Your task to perform on an android device: search for starred emails in the gmail app Image 0: 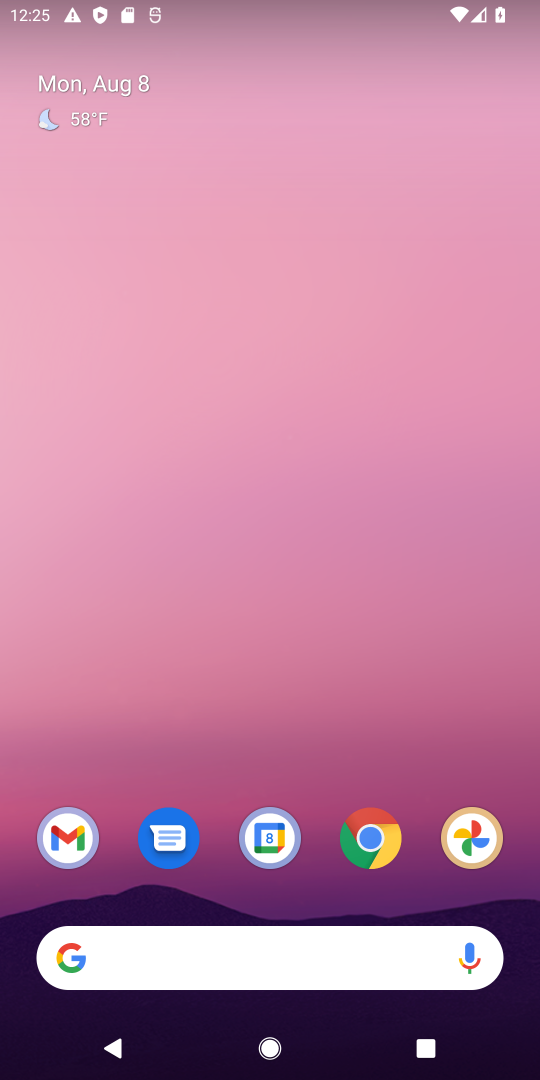
Step 0: click (65, 841)
Your task to perform on an android device: search for starred emails in the gmail app Image 1: 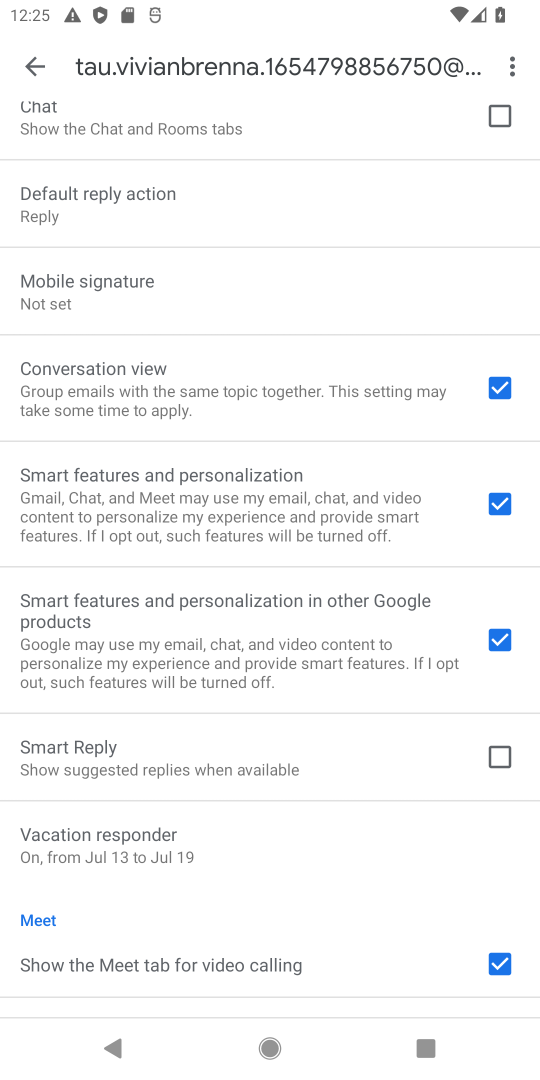
Step 1: click (27, 67)
Your task to perform on an android device: search for starred emails in the gmail app Image 2: 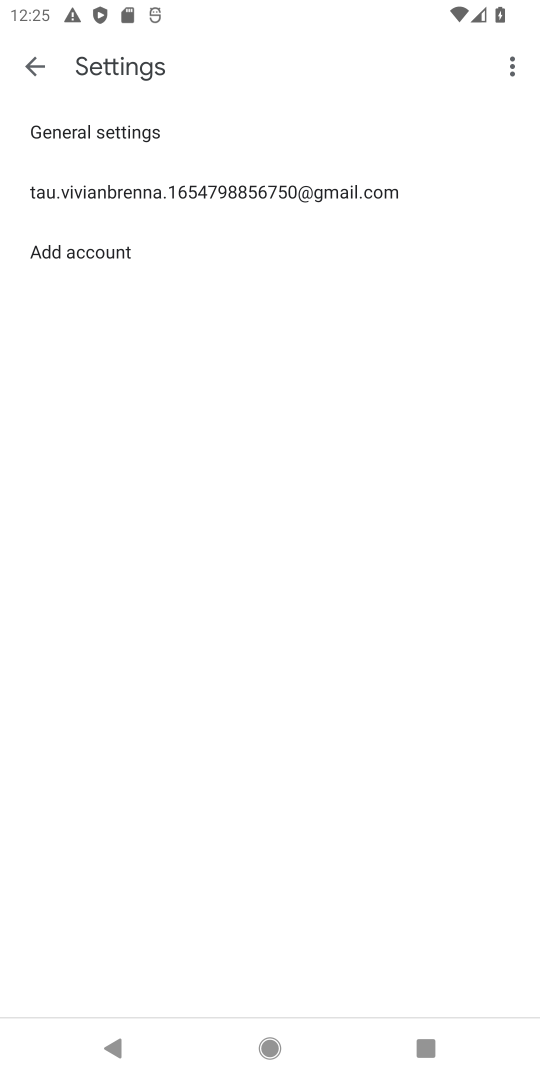
Step 2: click (36, 73)
Your task to perform on an android device: search for starred emails in the gmail app Image 3: 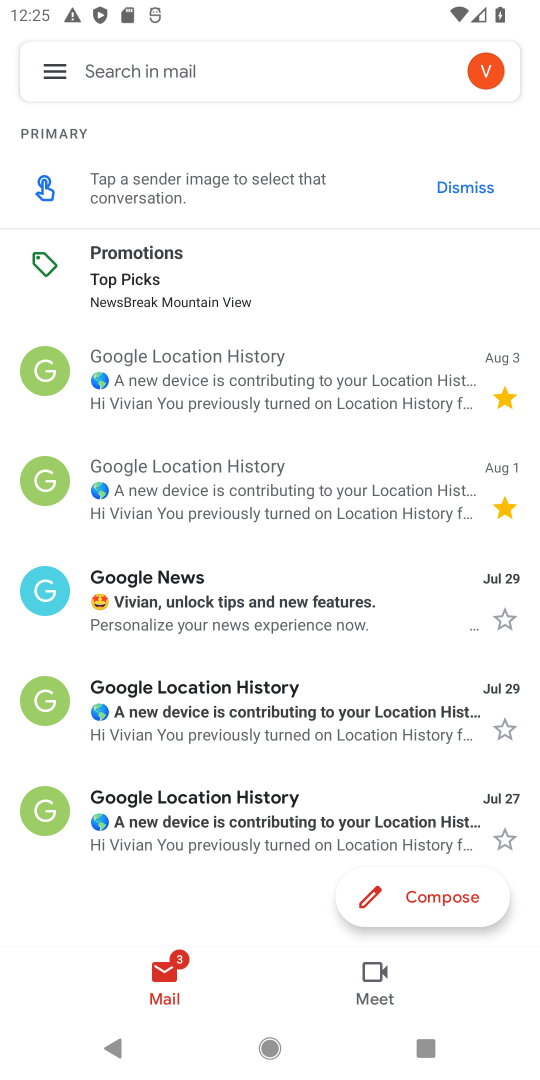
Step 3: click (45, 73)
Your task to perform on an android device: search for starred emails in the gmail app Image 4: 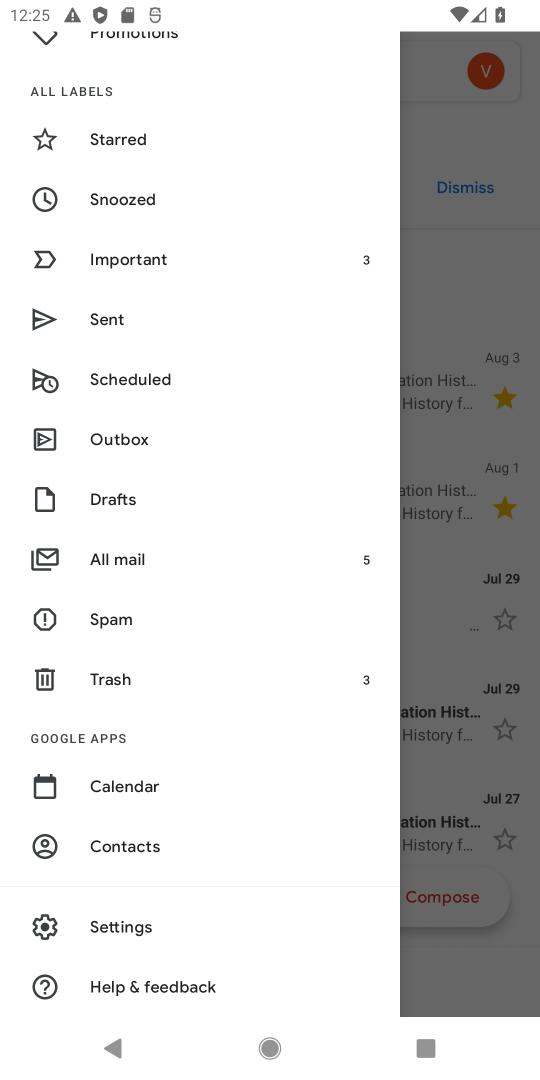
Step 4: click (107, 135)
Your task to perform on an android device: search for starred emails in the gmail app Image 5: 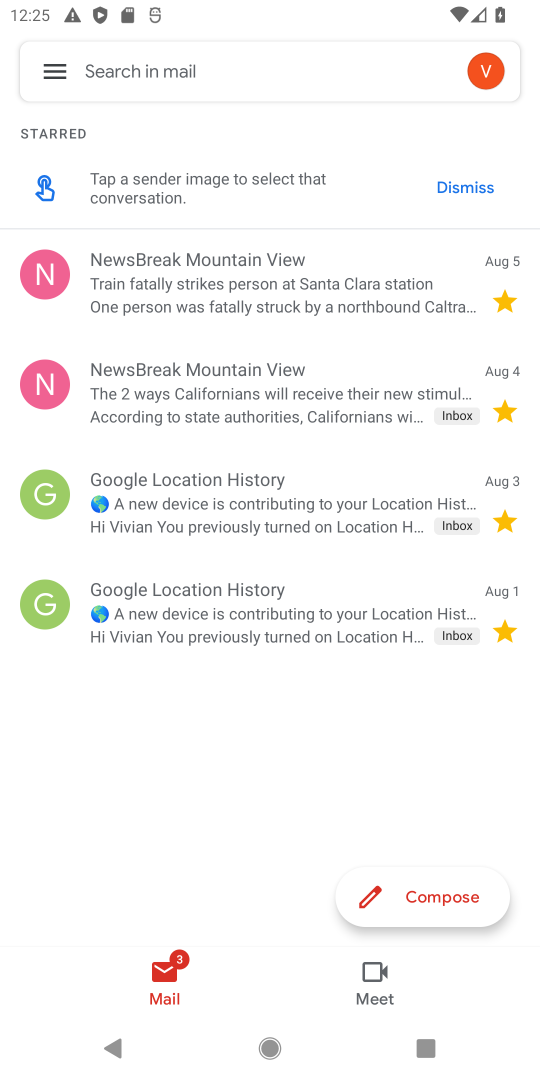
Step 5: task complete